Your task to perform on an android device: all mails in gmail Image 0: 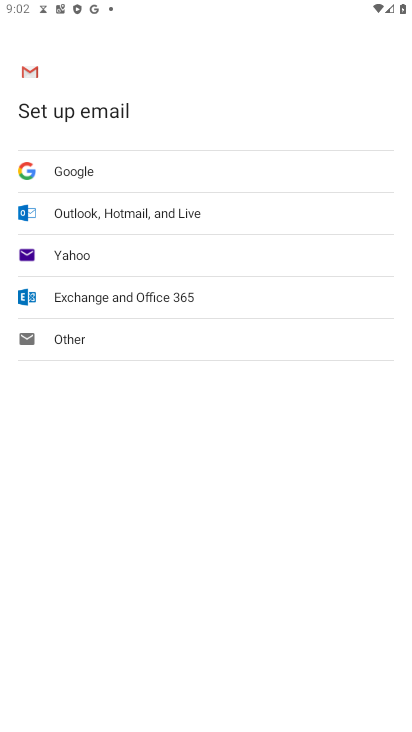
Step 0: press back button
Your task to perform on an android device: all mails in gmail Image 1: 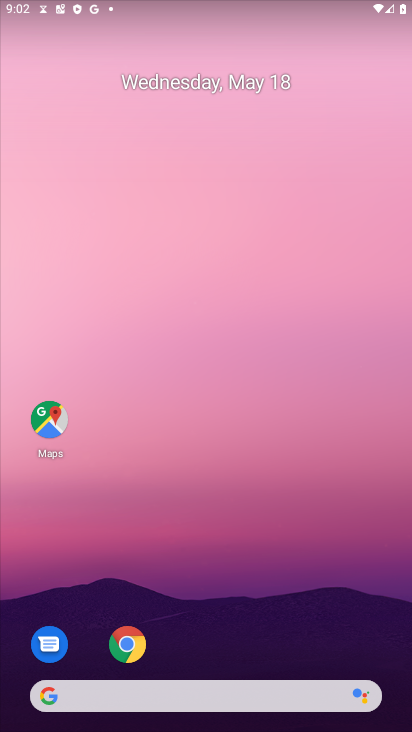
Step 1: drag from (256, 652) to (221, 197)
Your task to perform on an android device: all mails in gmail Image 2: 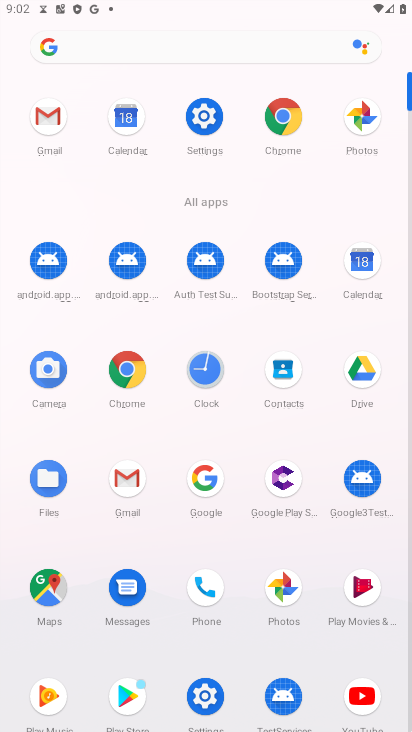
Step 2: click (47, 114)
Your task to perform on an android device: all mails in gmail Image 3: 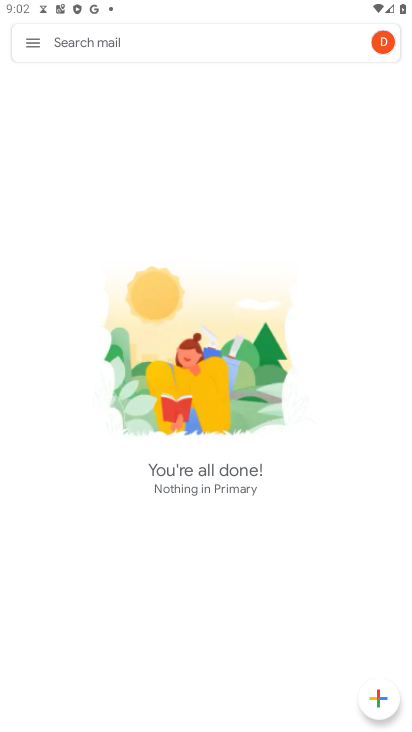
Step 3: click (32, 48)
Your task to perform on an android device: all mails in gmail Image 4: 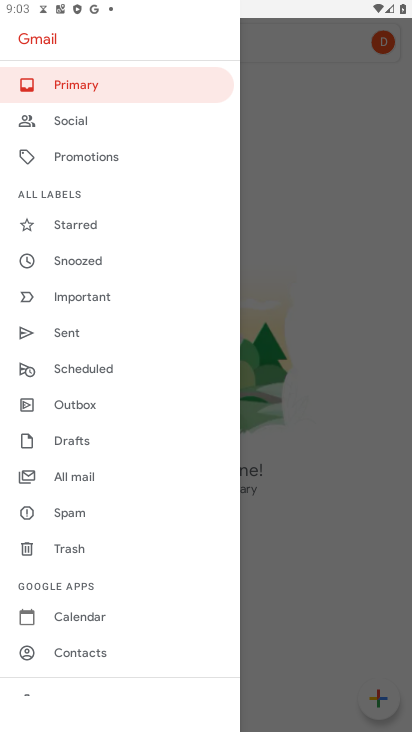
Step 4: click (80, 480)
Your task to perform on an android device: all mails in gmail Image 5: 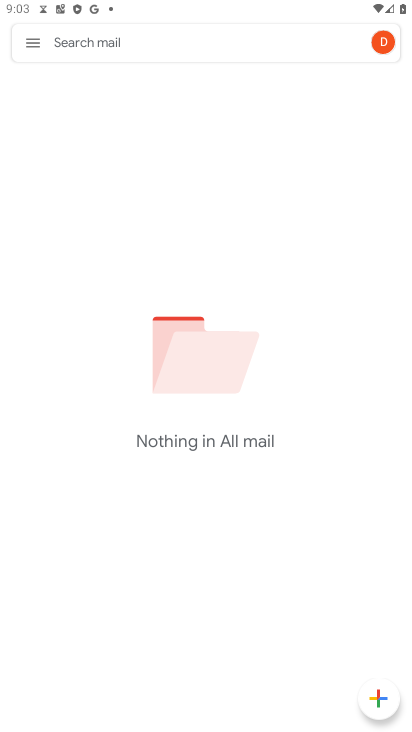
Step 5: task complete